Your task to perform on an android device: Open Youtube and go to "Your channel" Image 0: 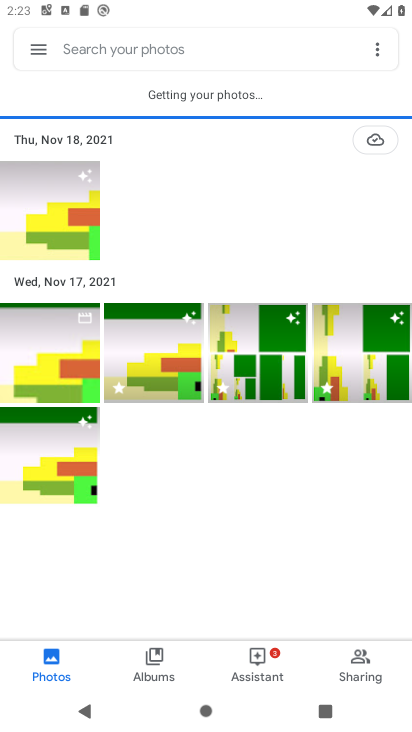
Step 0: drag from (260, 504) to (307, 177)
Your task to perform on an android device: Open Youtube and go to "Your channel" Image 1: 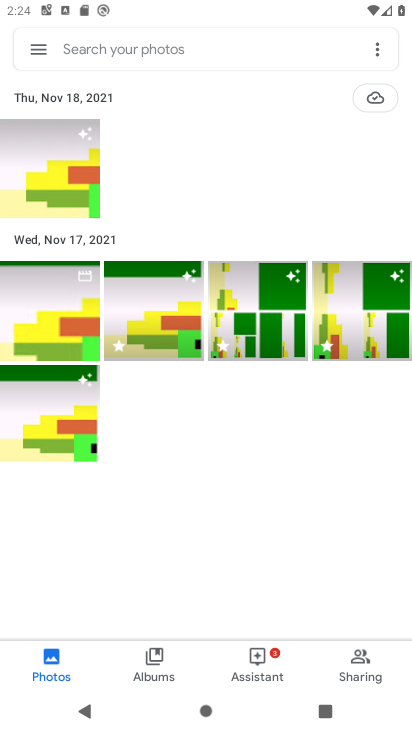
Step 1: press home button
Your task to perform on an android device: Open Youtube and go to "Your channel" Image 2: 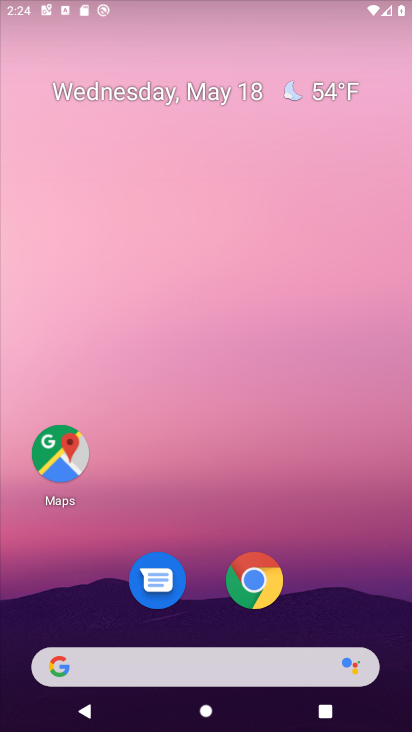
Step 2: drag from (223, 632) to (283, 76)
Your task to perform on an android device: Open Youtube and go to "Your channel" Image 3: 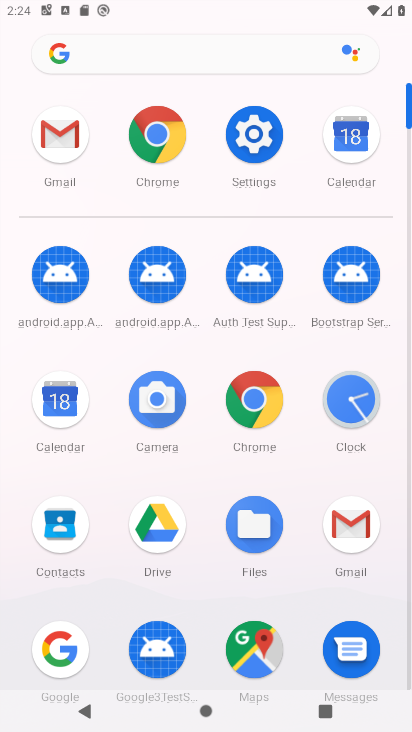
Step 3: drag from (202, 630) to (218, 223)
Your task to perform on an android device: Open Youtube and go to "Your channel" Image 4: 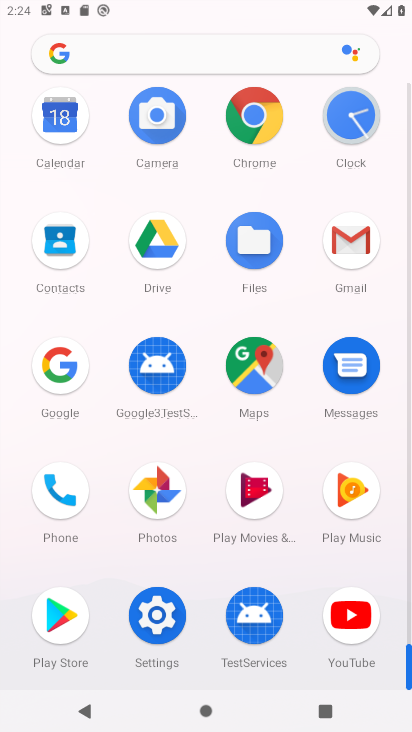
Step 4: click (344, 615)
Your task to perform on an android device: Open Youtube and go to "Your channel" Image 5: 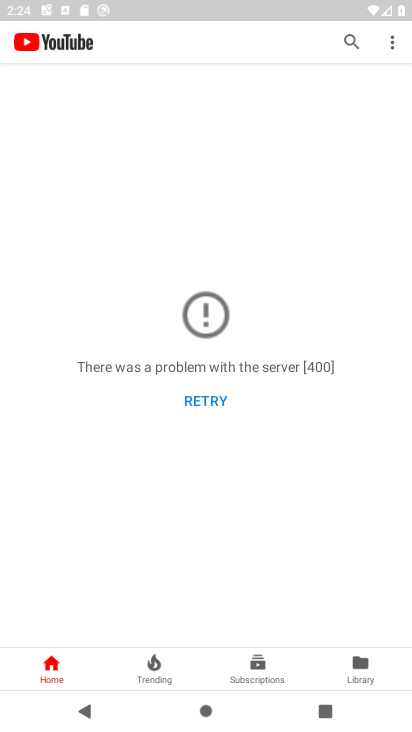
Step 5: click (351, 667)
Your task to perform on an android device: Open Youtube and go to "Your channel" Image 6: 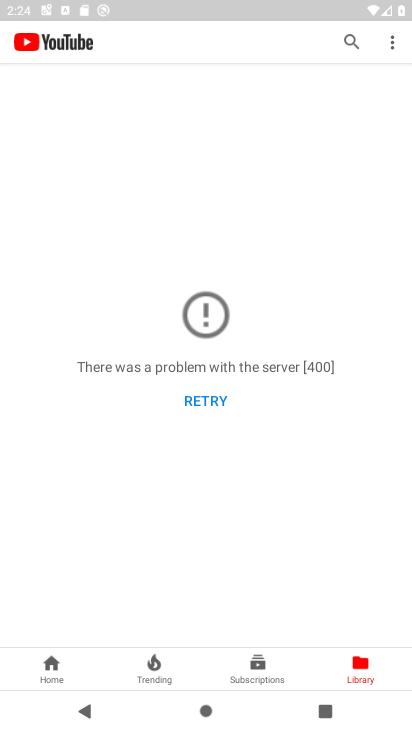
Step 6: task complete